Your task to perform on an android device: change notifications settings Image 0: 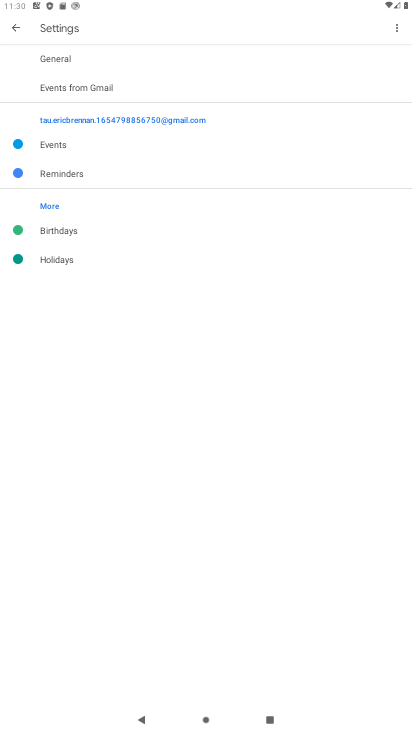
Step 0: press home button
Your task to perform on an android device: change notifications settings Image 1: 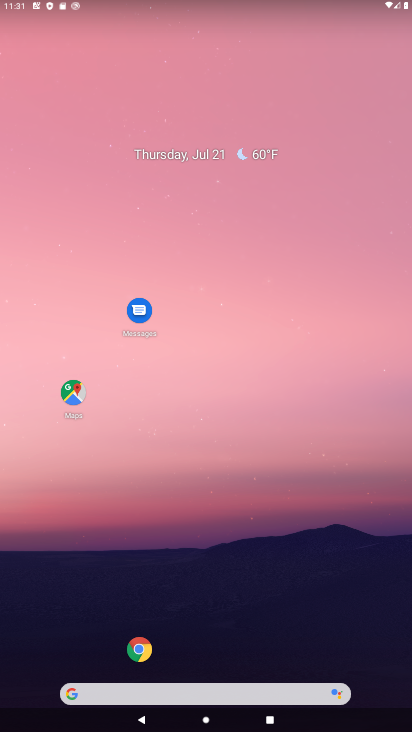
Step 1: drag from (46, 715) to (180, 246)
Your task to perform on an android device: change notifications settings Image 2: 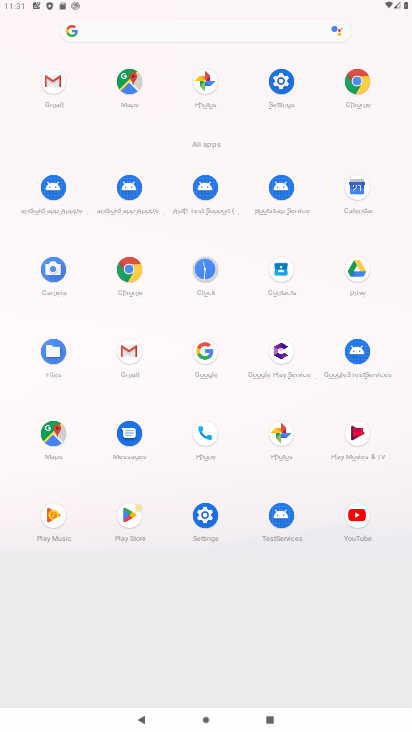
Step 2: click (212, 513)
Your task to perform on an android device: change notifications settings Image 3: 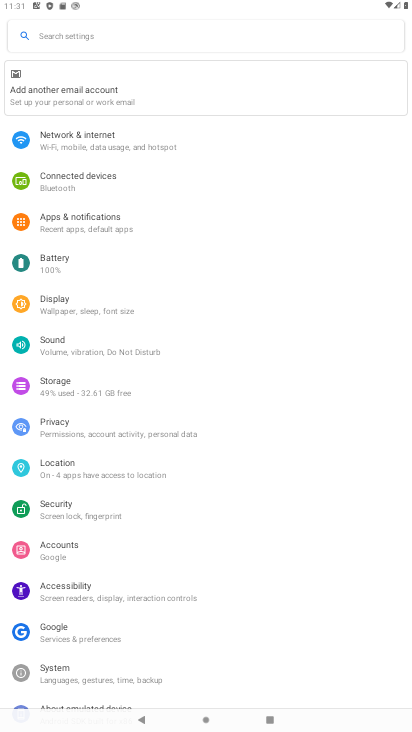
Step 3: click (81, 219)
Your task to perform on an android device: change notifications settings Image 4: 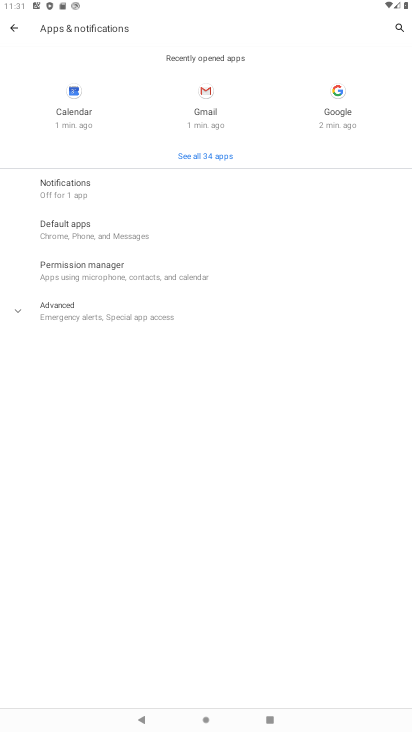
Step 4: task complete